Your task to perform on an android device: Open Chrome and go to settings Image 0: 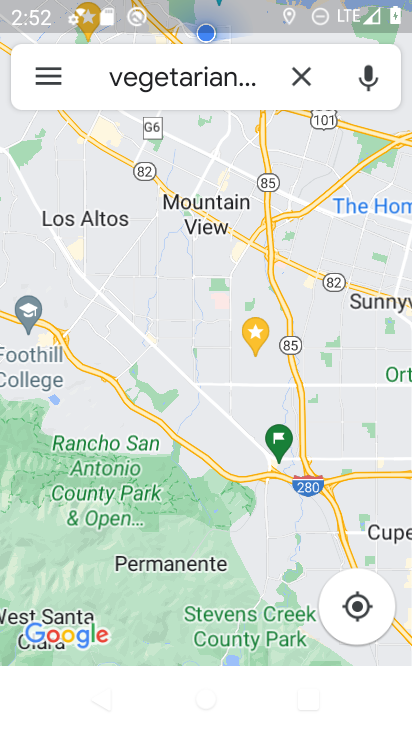
Step 0: press home button
Your task to perform on an android device: Open Chrome and go to settings Image 1: 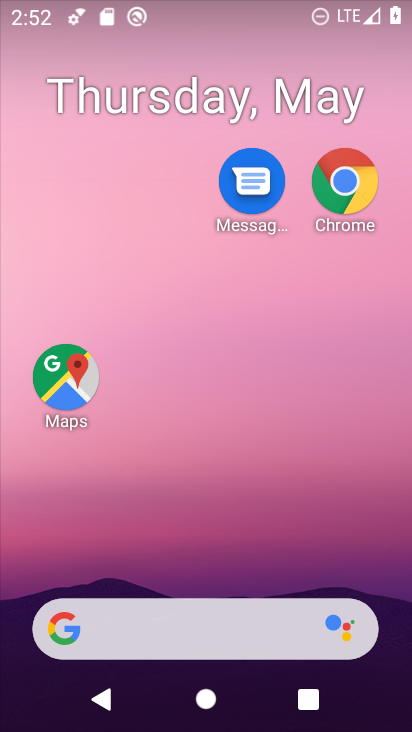
Step 1: drag from (313, 618) to (287, 4)
Your task to perform on an android device: Open Chrome and go to settings Image 2: 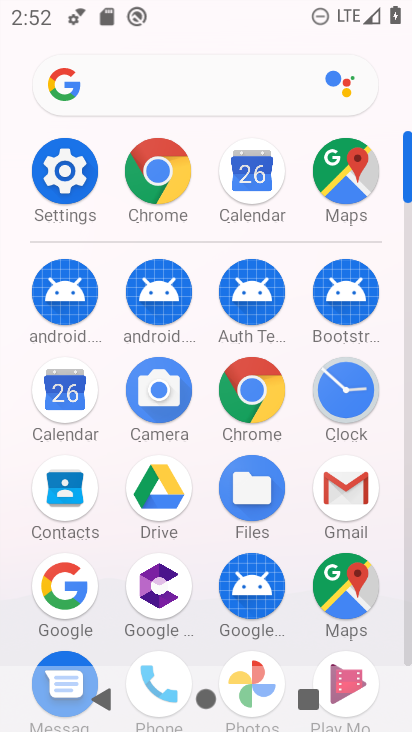
Step 2: click (262, 383)
Your task to perform on an android device: Open Chrome and go to settings Image 3: 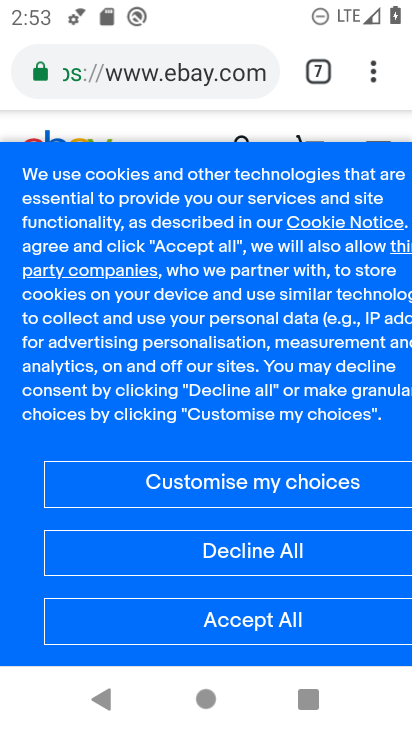
Step 3: task complete